Your task to perform on an android device: change alarm snooze length Image 0: 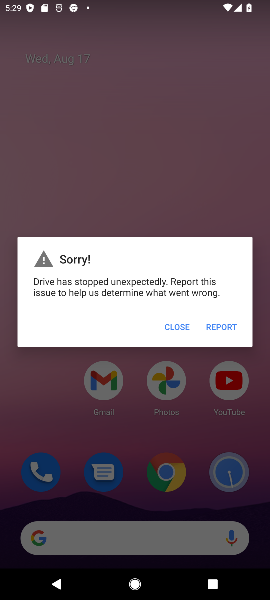
Step 0: click (182, 322)
Your task to perform on an android device: change alarm snooze length Image 1: 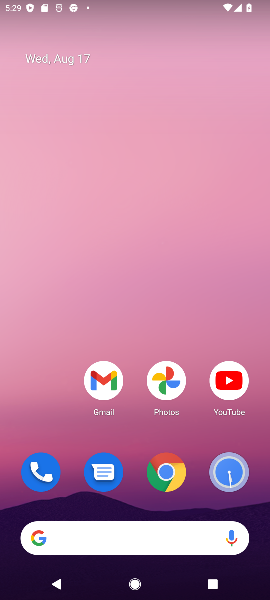
Step 1: click (221, 464)
Your task to perform on an android device: change alarm snooze length Image 2: 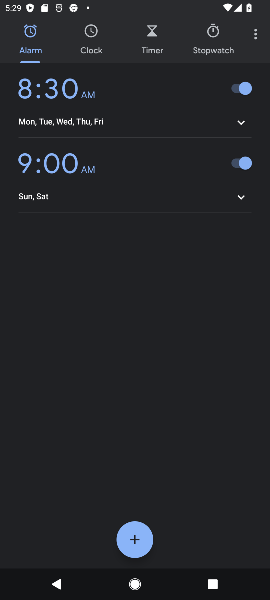
Step 2: click (254, 33)
Your task to perform on an android device: change alarm snooze length Image 3: 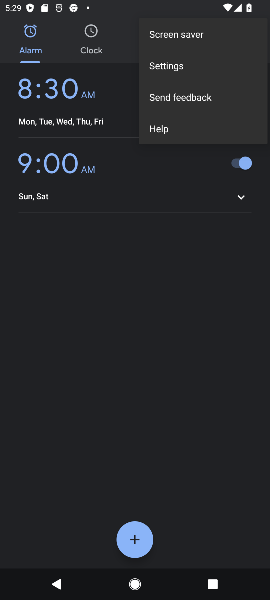
Step 3: click (172, 68)
Your task to perform on an android device: change alarm snooze length Image 4: 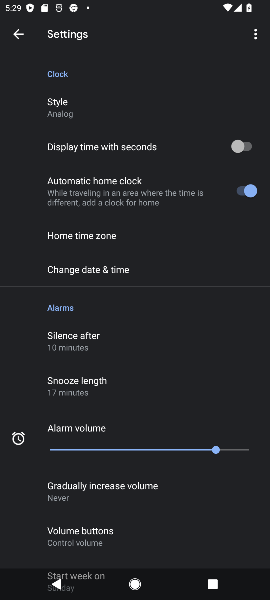
Step 4: click (95, 381)
Your task to perform on an android device: change alarm snooze length Image 5: 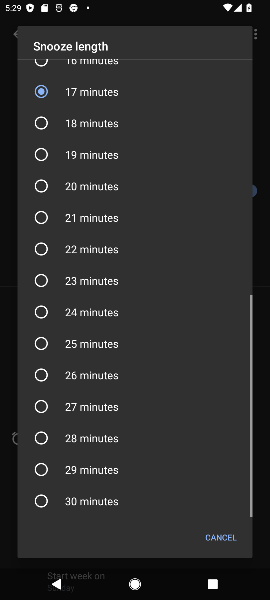
Step 5: click (95, 381)
Your task to perform on an android device: change alarm snooze length Image 6: 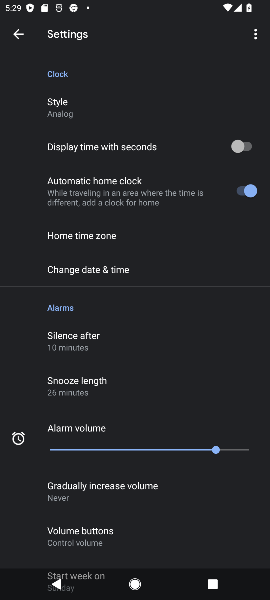
Step 6: task complete